Your task to perform on an android device: Go to Yahoo.com Image 0: 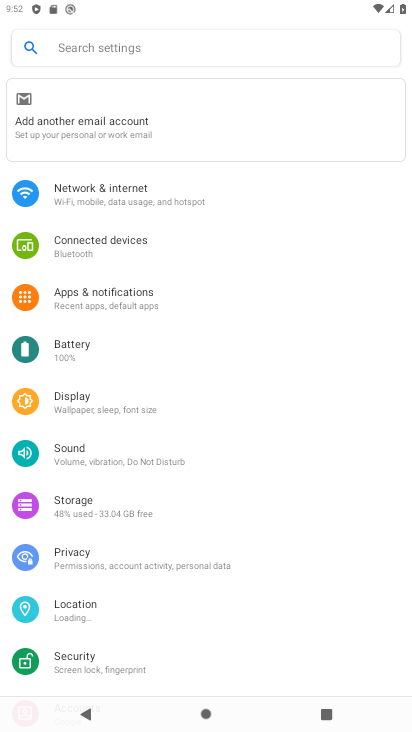
Step 0: click (235, 568)
Your task to perform on an android device: Go to Yahoo.com Image 1: 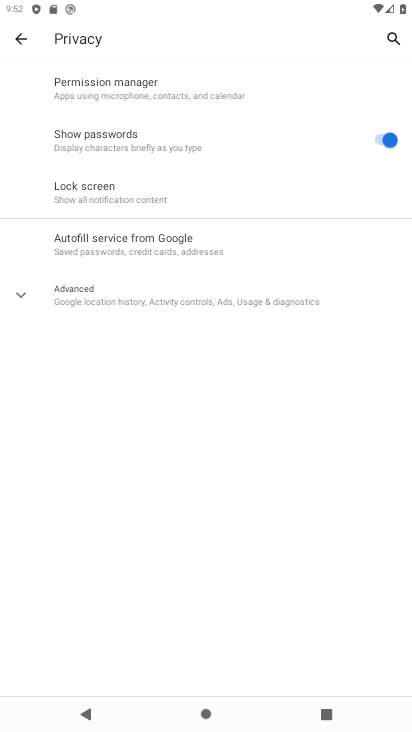
Step 1: press home button
Your task to perform on an android device: Go to Yahoo.com Image 2: 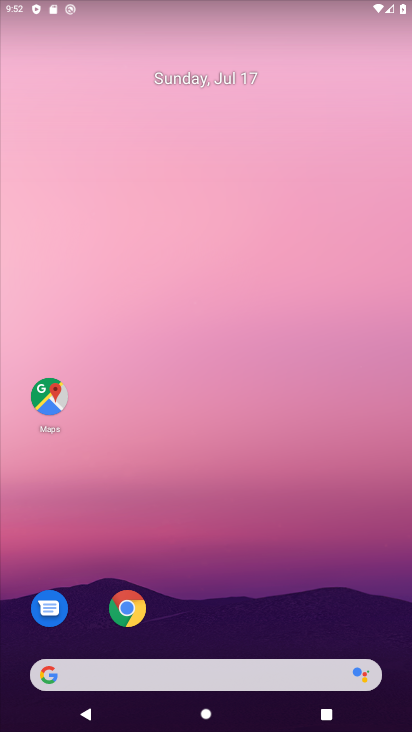
Step 2: click (250, 572)
Your task to perform on an android device: Go to Yahoo.com Image 3: 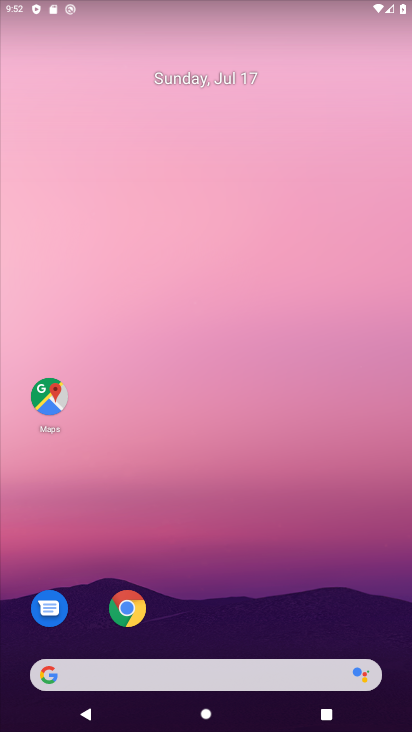
Step 3: drag from (250, 572) to (111, 79)
Your task to perform on an android device: Go to Yahoo.com Image 4: 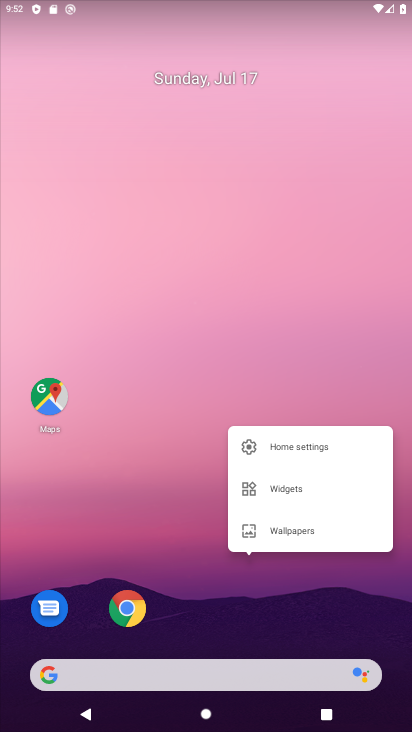
Step 4: drag from (196, 573) to (194, 0)
Your task to perform on an android device: Go to Yahoo.com Image 5: 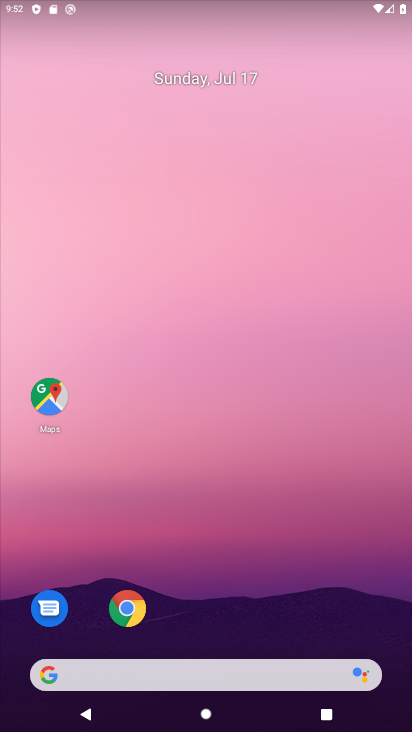
Step 5: drag from (235, 615) to (183, 1)
Your task to perform on an android device: Go to Yahoo.com Image 6: 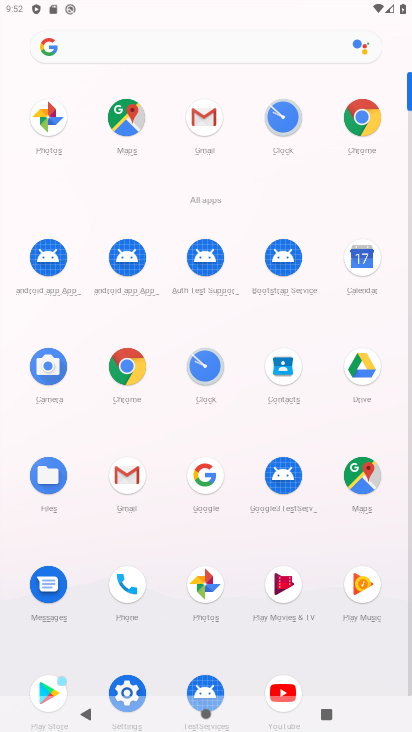
Step 6: click (36, 65)
Your task to perform on an android device: Go to Yahoo.com Image 7: 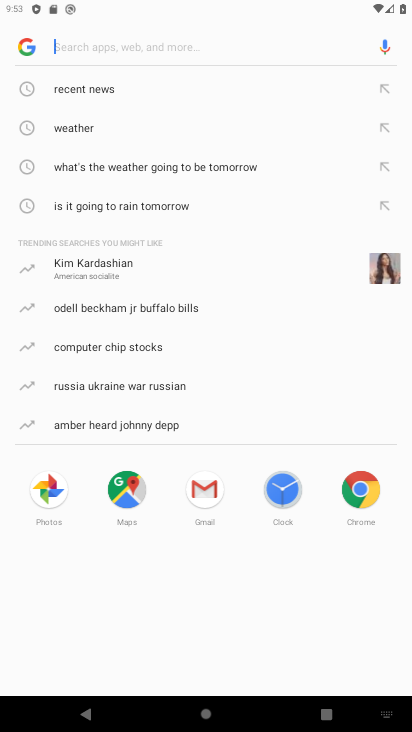
Step 7: press back button
Your task to perform on an android device: Go to Yahoo.com Image 8: 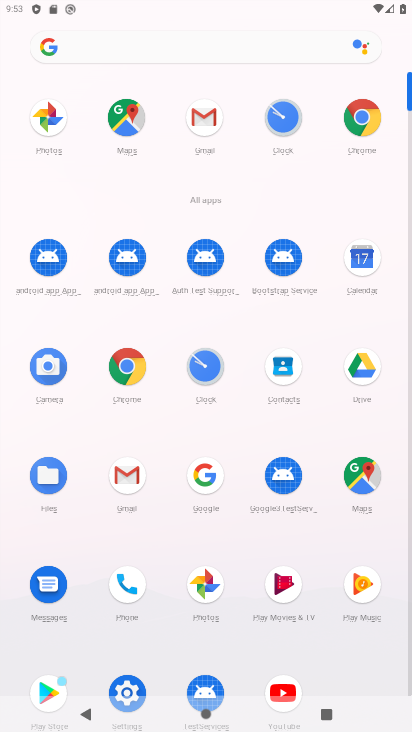
Step 8: click (364, 123)
Your task to perform on an android device: Go to Yahoo.com Image 9: 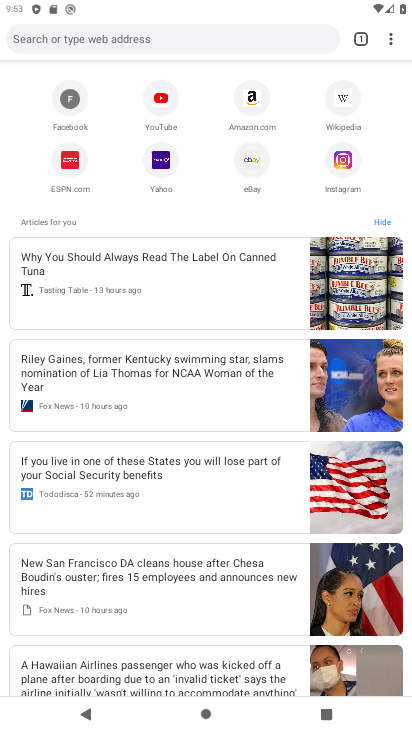
Step 9: click (170, 155)
Your task to perform on an android device: Go to Yahoo.com Image 10: 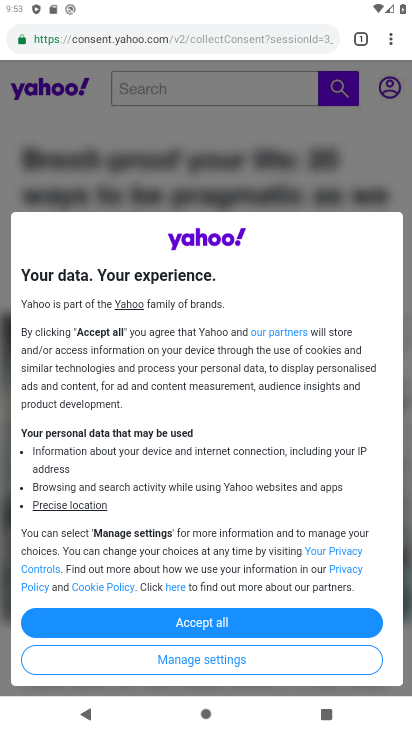
Step 10: click (244, 614)
Your task to perform on an android device: Go to Yahoo.com Image 11: 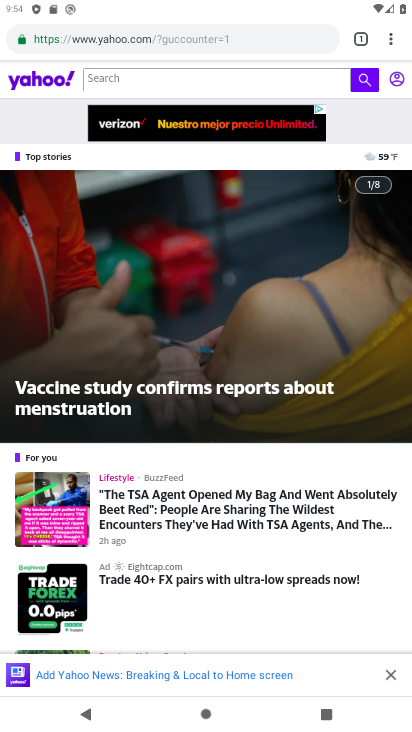
Step 11: task complete